Your task to perform on an android device: open a new tab in the chrome app Image 0: 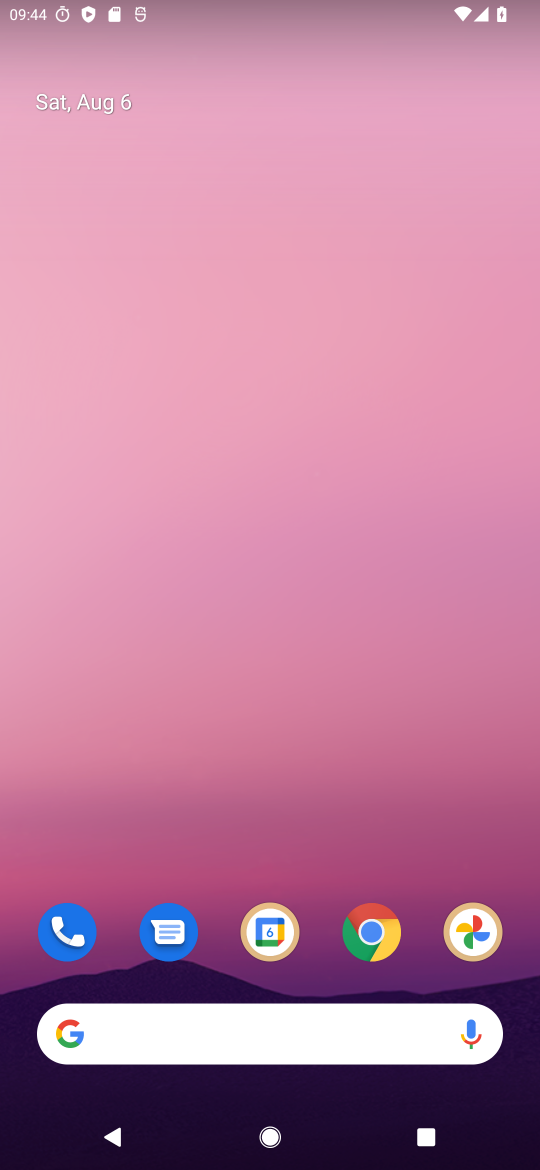
Step 0: drag from (276, 1039) to (464, 200)
Your task to perform on an android device: open a new tab in the chrome app Image 1: 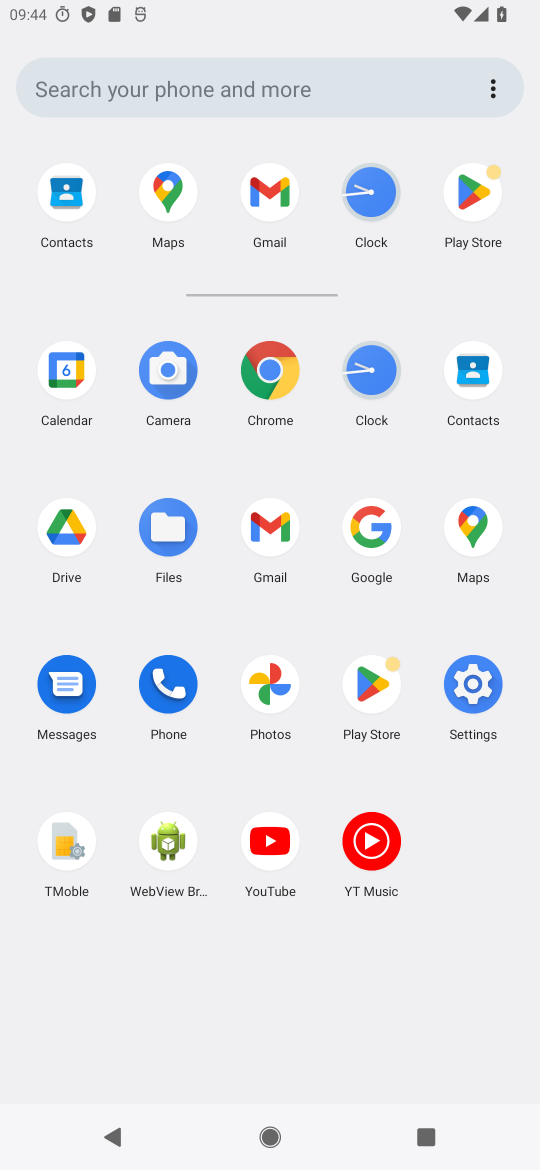
Step 1: click (266, 379)
Your task to perform on an android device: open a new tab in the chrome app Image 2: 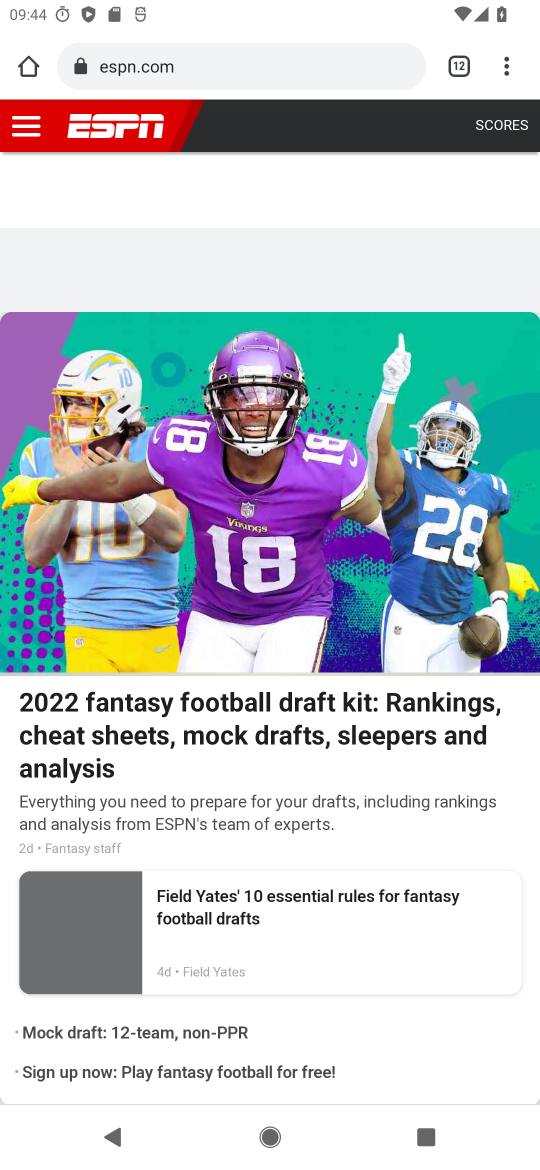
Step 2: task complete